Your task to perform on an android device: Open privacy settings Image 0: 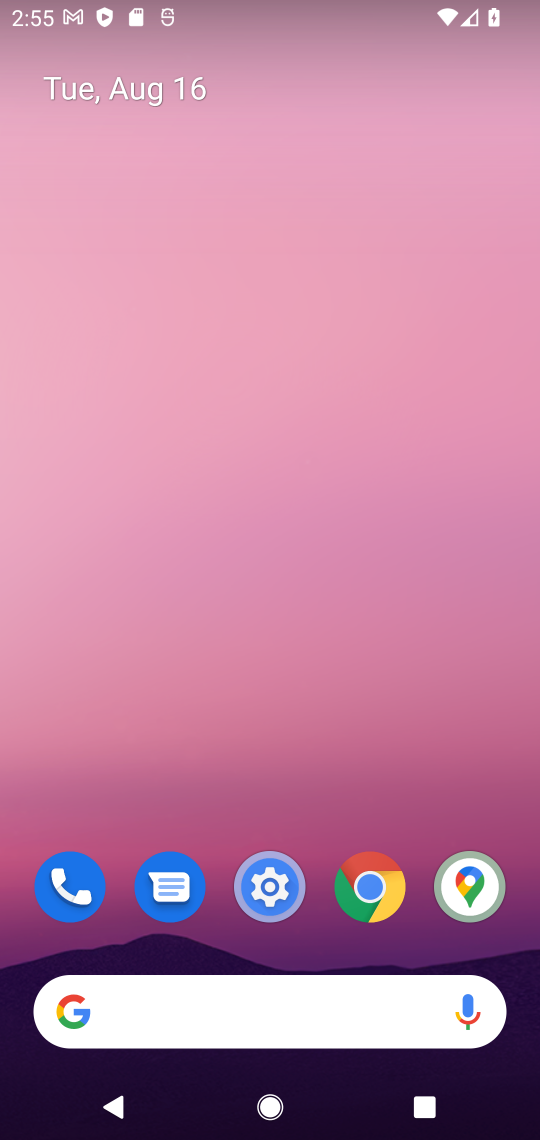
Step 0: drag from (376, 683) to (284, 0)
Your task to perform on an android device: Open privacy settings Image 1: 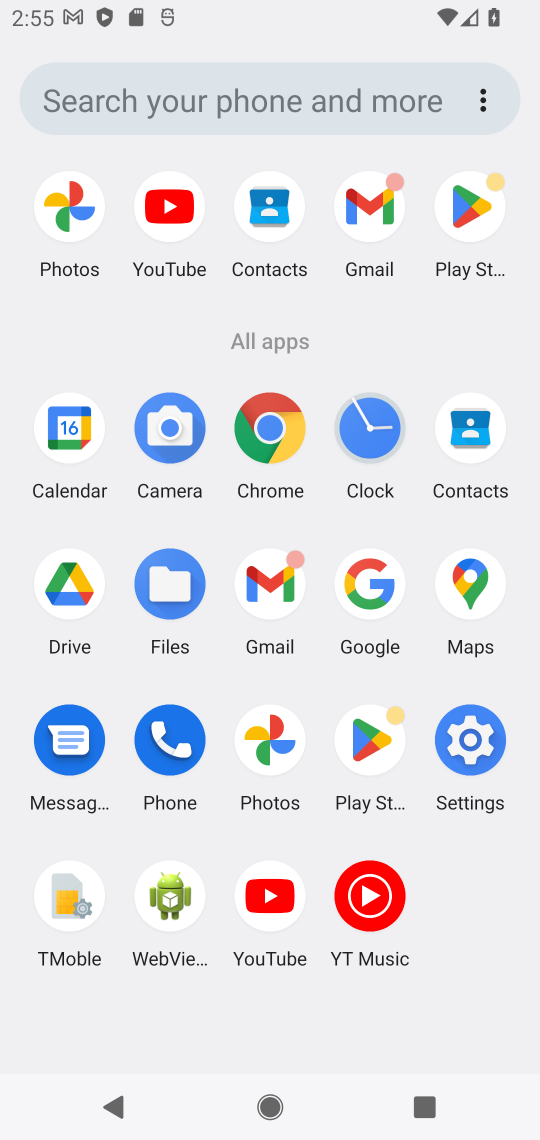
Step 1: click (467, 738)
Your task to perform on an android device: Open privacy settings Image 2: 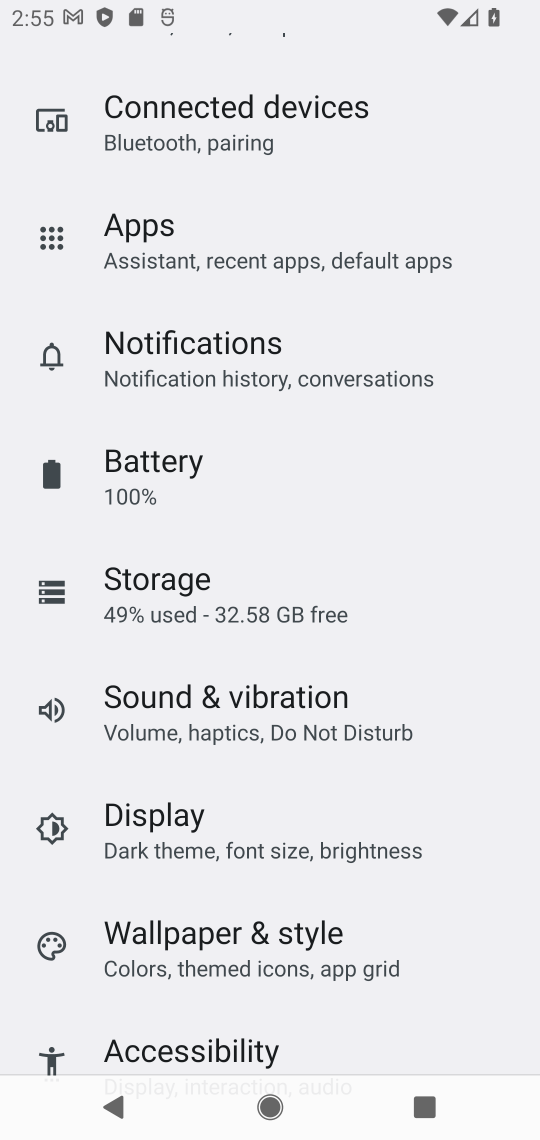
Step 2: drag from (306, 172) to (465, 79)
Your task to perform on an android device: Open privacy settings Image 3: 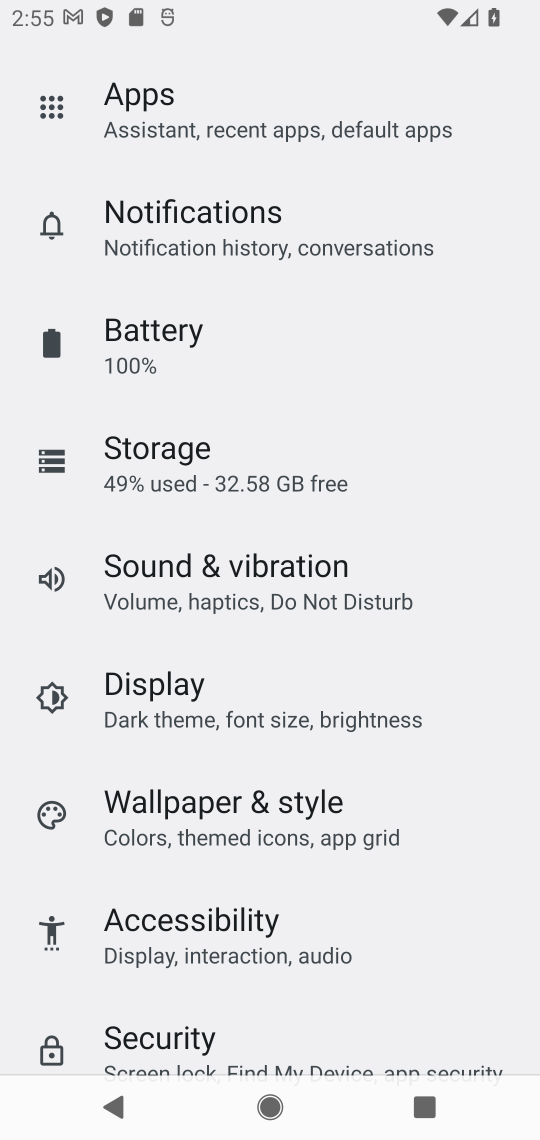
Step 3: drag from (432, 886) to (400, 219)
Your task to perform on an android device: Open privacy settings Image 4: 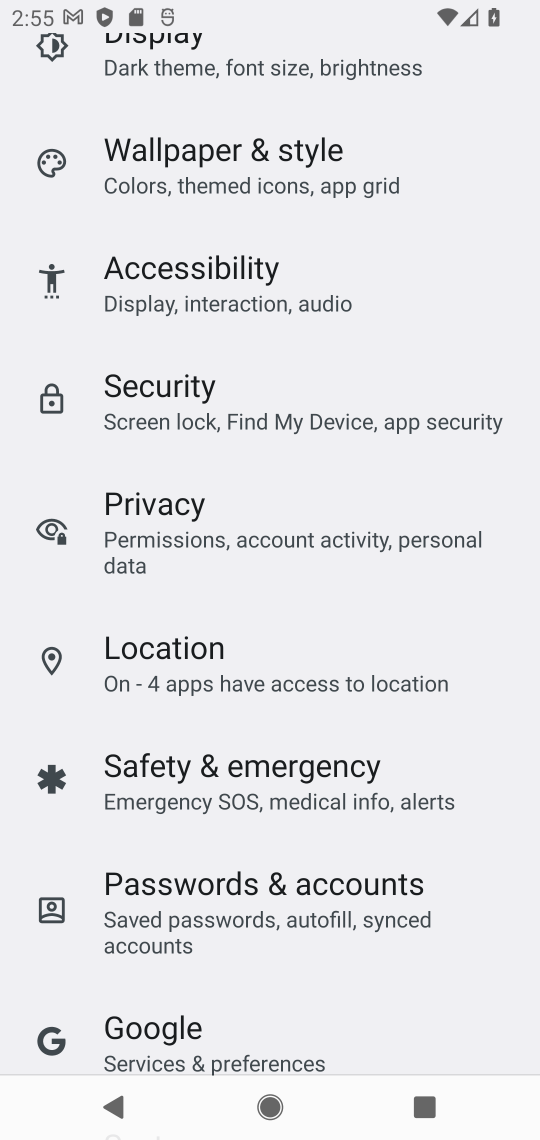
Step 4: click (203, 521)
Your task to perform on an android device: Open privacy settings Image 5: 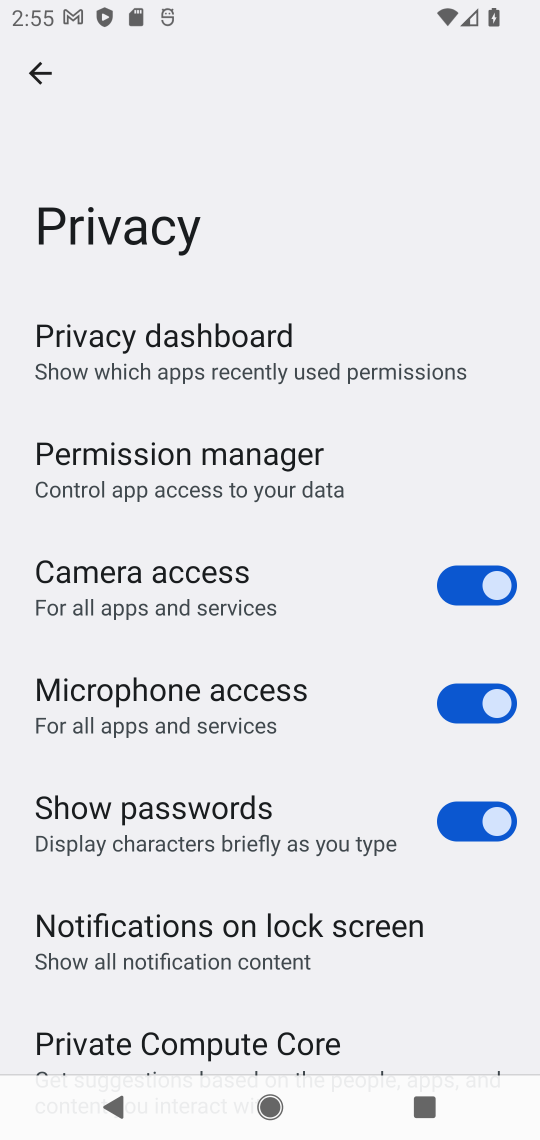
Step 5: task complete